Your task to perform on an android device: Show me the alarms in the clock app Image 0: 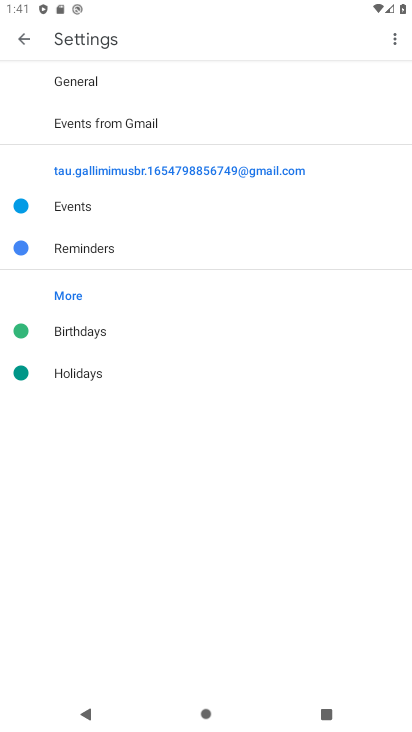
Step 0: press home button
Your task to perform on an android device: Show me the alarms in the clock app Image 1: 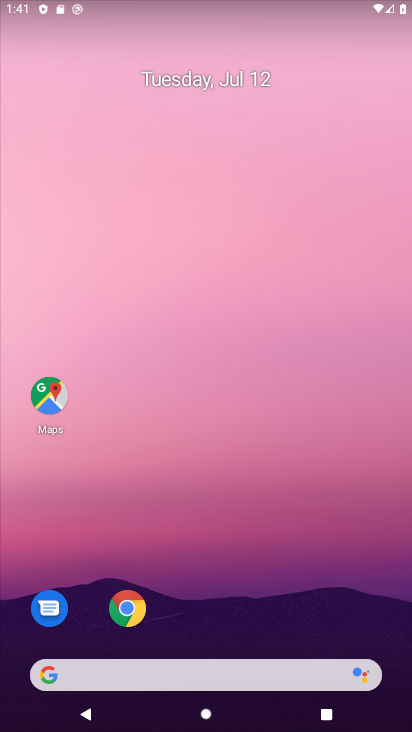
Step 1: drag from (296, 556) to (257, 84)
Your task to perform on an android device: Show me the alarms in the clock app Image 2: 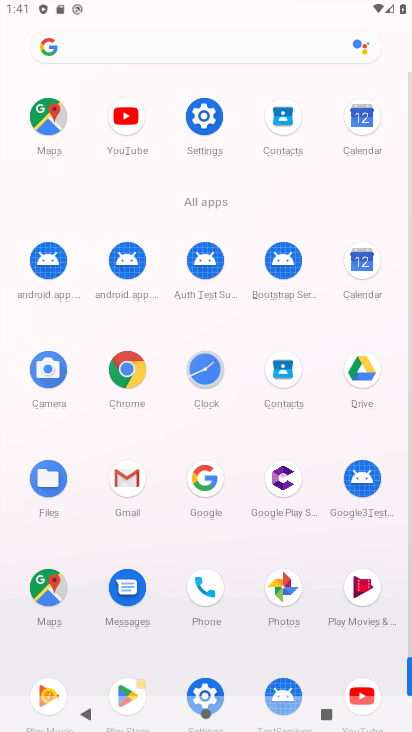
Step 2: click (203, 374)
Your task to perform on an android device: Show me the alarms in the clock app Image 3: 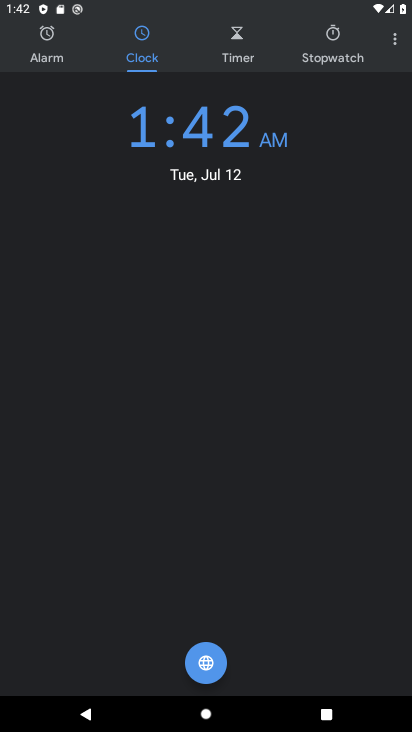
Step 3: click (58, 55)
Your task to perform on an android device: Show me the alarms in the clock app Image 4: 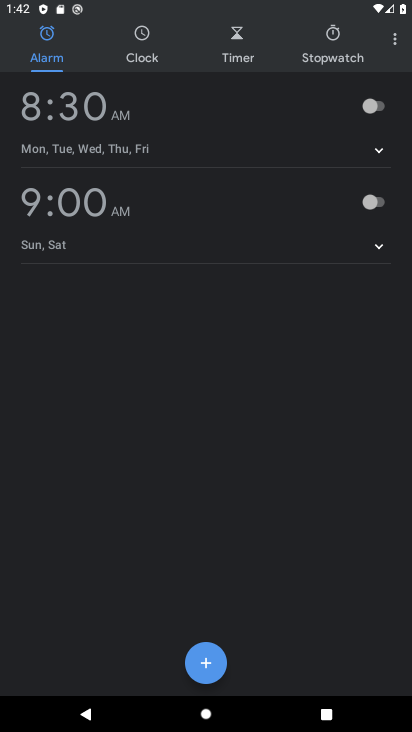
Step 4: task complete